Your task to perform on an android device: clear all cookies in the chrome app Image 0: 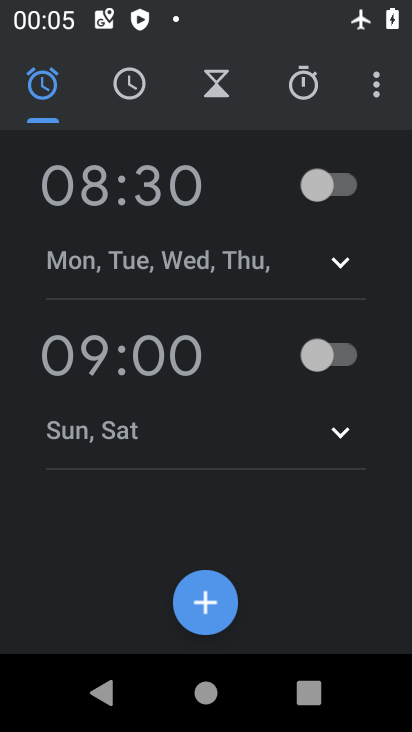
Step 0: press home button
Your task to perform on an android device: clear all cookies in the chrome app Image 1: 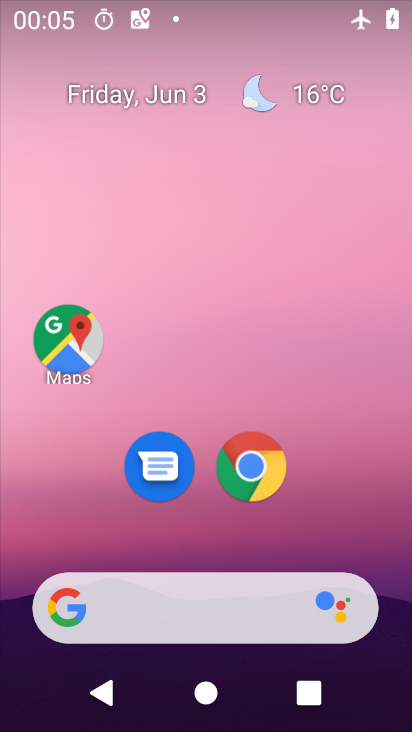
Step 1: click (233, 462)
Your task to perform on an android device: clear all cookies in the chrome app Image 2: 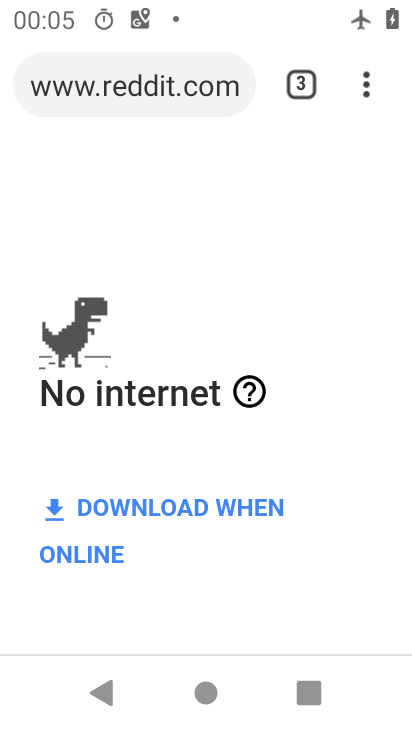
Step 2: click (369, 80)
Your task to perform on an android device: clear all cookies in the chrome app Image 3: 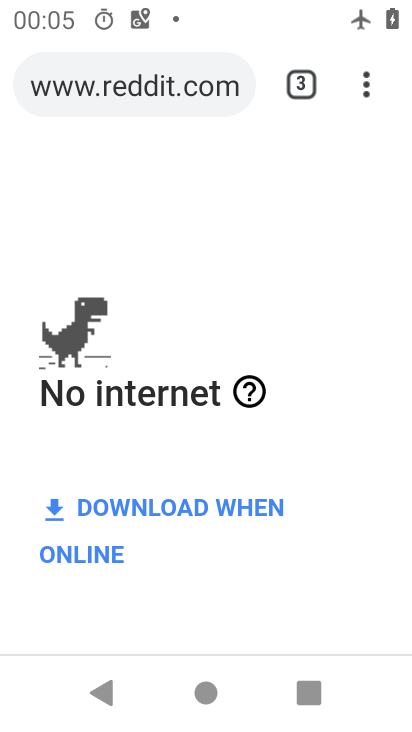
Step 3: task complete